Your task to perform on an android device: Open the web browser Image 0: 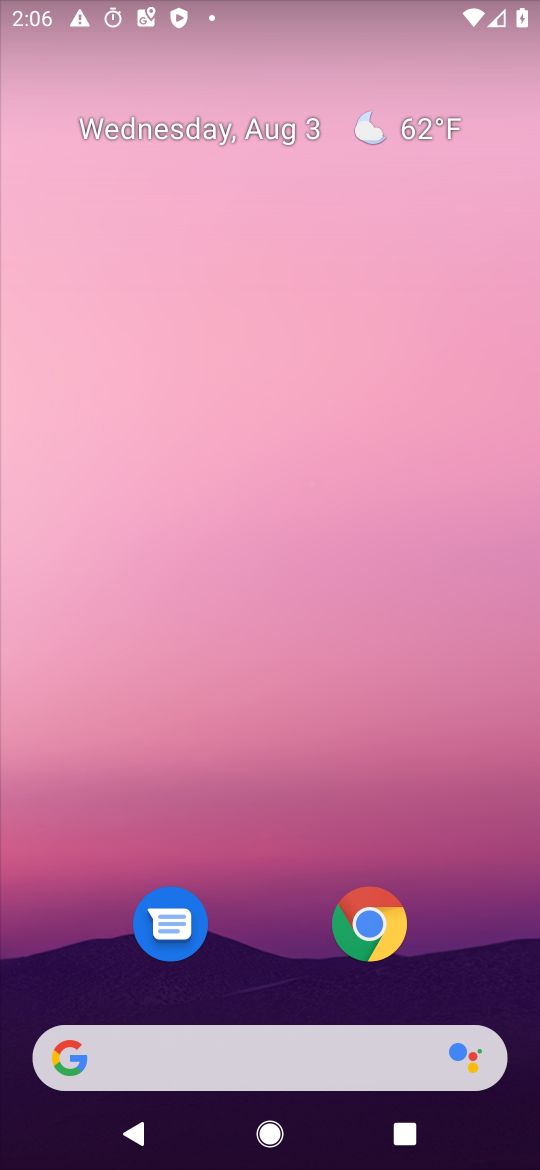
Step 0: press home button
Your task to perform on an android device: Open the web browser Image 1: 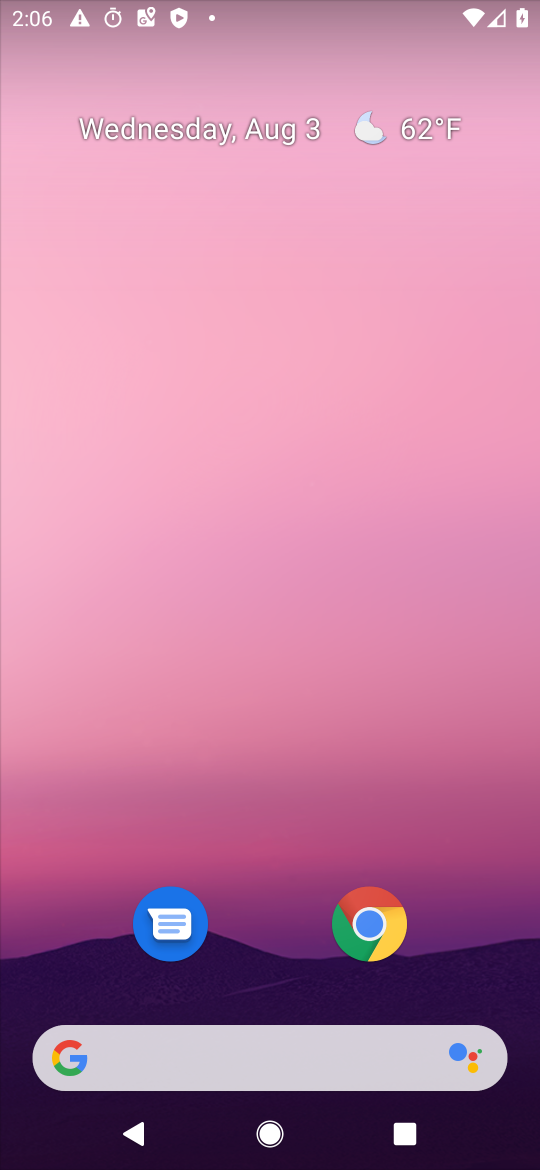
Step 1: click (364, 919)
Your task to perform on an android device: Open the web browser Image 2: 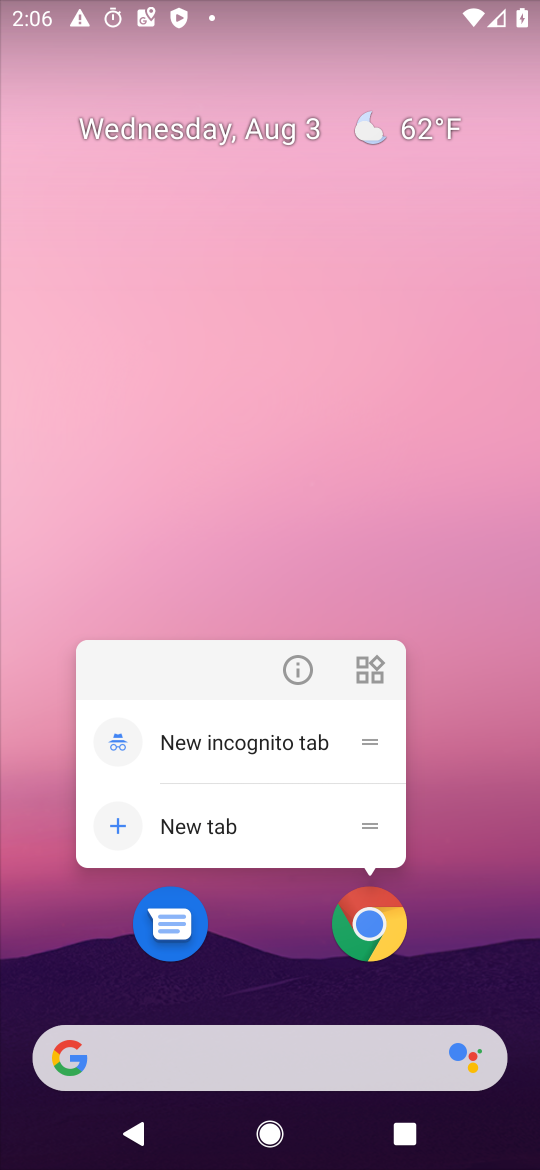
Step 2: click (373, 926)
Your task to perform on an android device: Open the web browser Image 3: 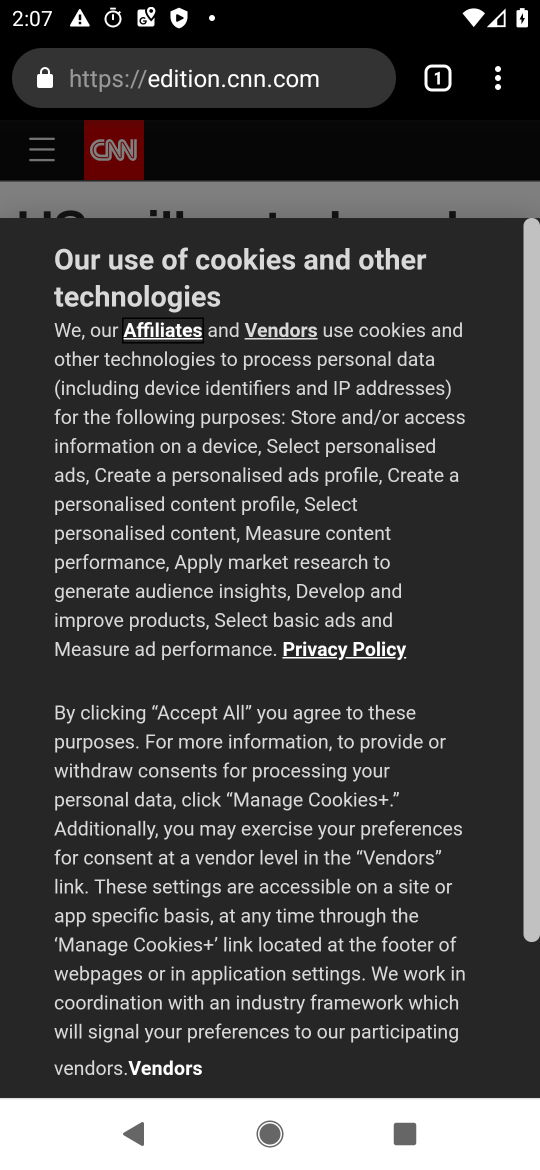
Step 3: click (433, 81)
Your task to perform on an android device: Open the web browser Image 4: 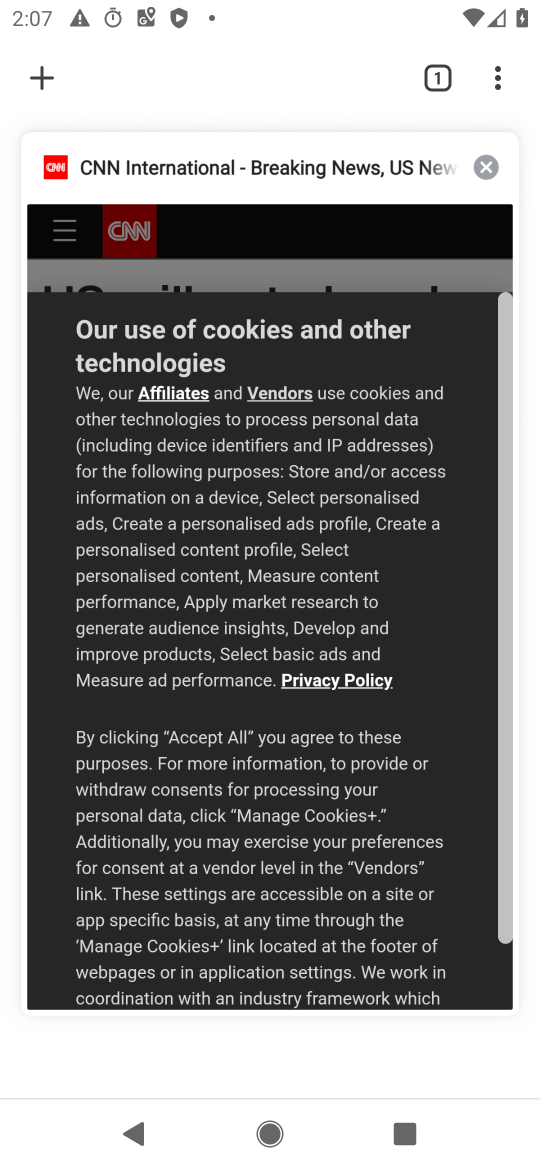
Step 4: click (337, 579)
Your task to perform on an android device: Open the web browser Image 5: 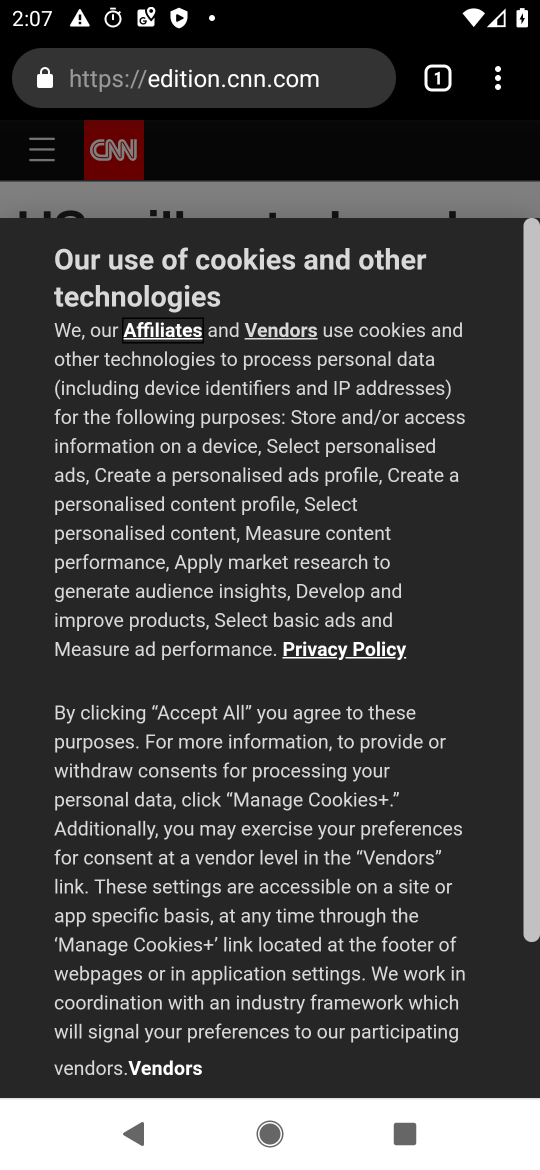
Step 5: task complete